Your task to perform on an android device: Go to internet settings Image 0: 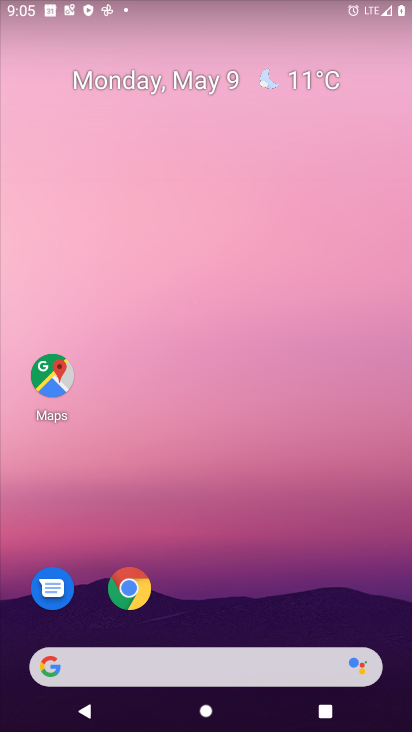
Step 0: drag from (310, 617) to (329, 24)
Your task to perform on an android device: Go to internet settings Image 1: 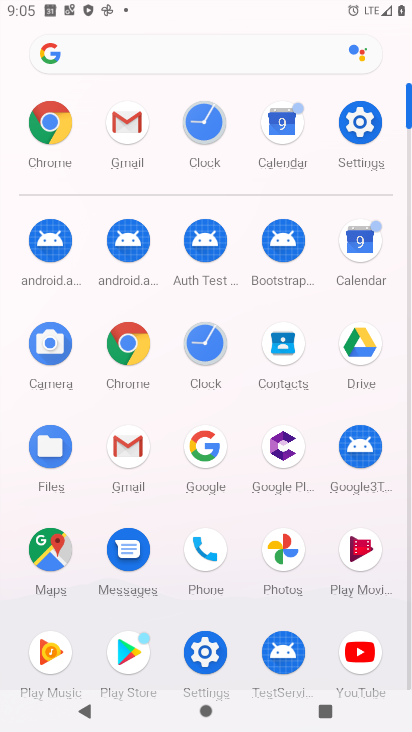
Step 1: click (217, 649)
Your task to perform on an android device: Go to internet settings Image 2: 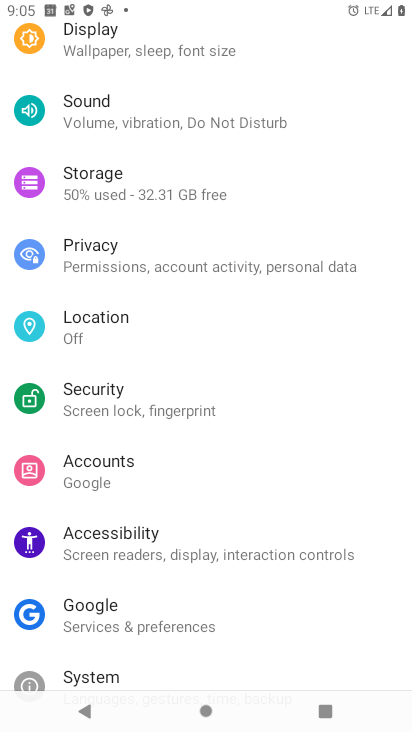
Step 2: drag from (212, 148) to (231, 675)
Your task to perform on an android device: Go to internet settings Image 3: 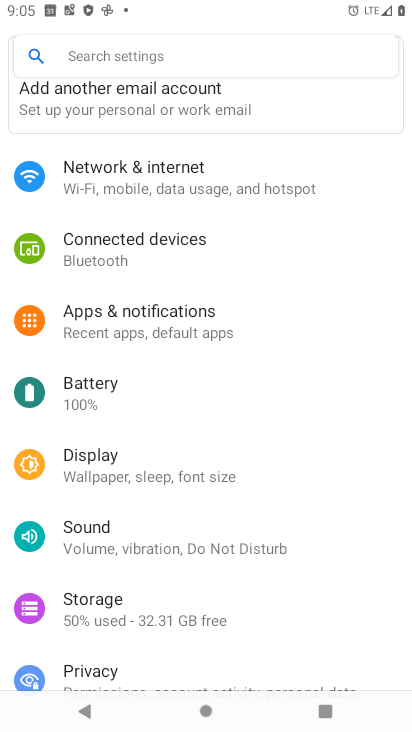
Step 3: click (160, 184)
Your task to perform on an android device: Go to internet settings Image 4: 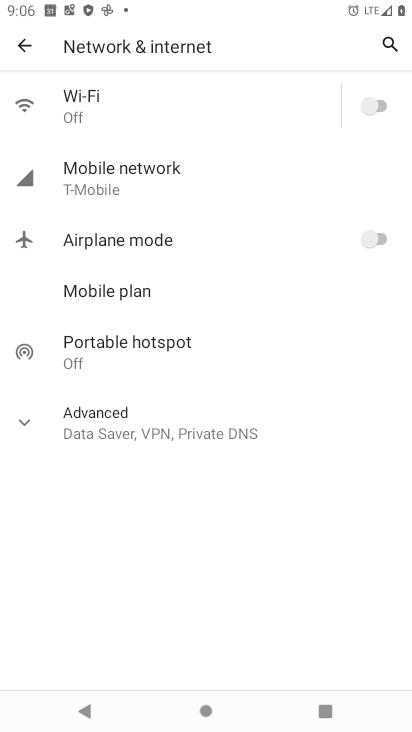
Step 4: task complete